Your task to perform on an android device: open app "Roku - Official Remote Control" (install if not already installed) and enter user name: "autumnal@gmail.com" and password: "stuffing" Image 0: 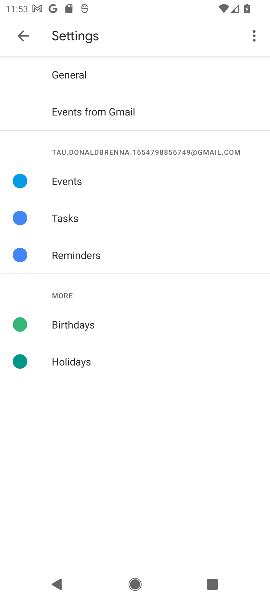
Step 0: press home button
Your task to perform on an android device: open app "Roku - Official Remote Control" (install if not already installed) and enter user name: "autumnal@gmail.com" and password: "stuffing" Image 1: 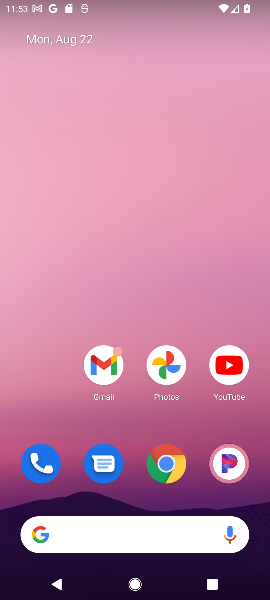
Step 1: click (127, 49)
Your task to perform on an android device: open app "Roku - Official Remote Control" (install if not already installed) and enter user name: "autumnal@gmail.com" and password: "stuffing" Image 2: 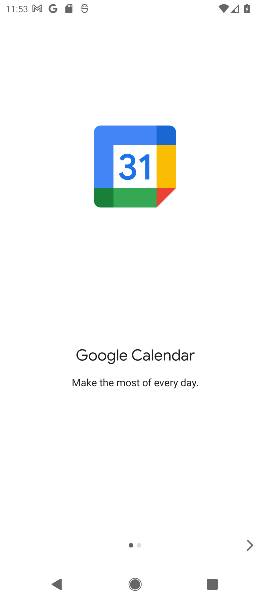
Step 2: click (247, 546)
Your task to perform on an android device: open app "Roku - Official Remote Control" (install if not already installed) and enter user name: "autumnal@gmail.com" and password: "stuffing" Image 3: 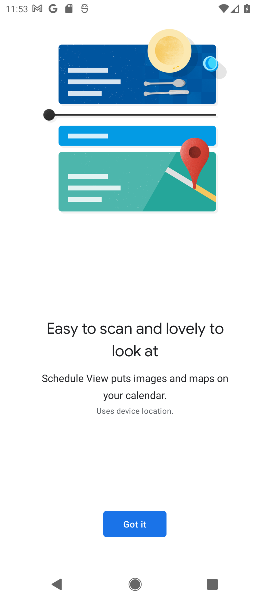
Step 3: click (154, 522)
Your task to perform on an android device: open app "Roku - Official Remote Control" (install if not already installed) and enter user name: "autumnal@gmail.com" and password: "stuffing" Image 4: 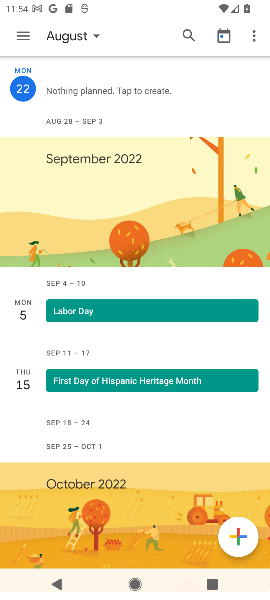
Step 4: press home button
Your task to perform on an android device: open app "Roku - Official Remote Control" (install if not already installed) and enter user name: "autumnal@gmail.com" and password: "stuffing" Image 5: 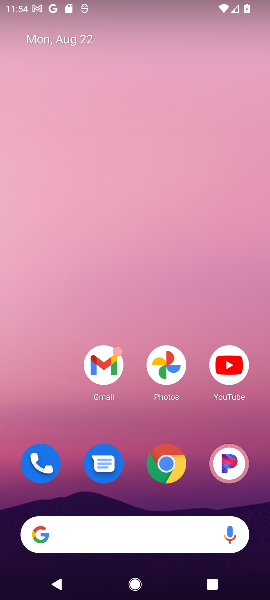
Step 5: drag from (152, 512) to (146, 59)
Your task to perform on an android device: open app "Roku - Official Remote Control" (install if not already installed) and enter user name: "autumnal@gmail.com" and password: "stuffing" Image 6: 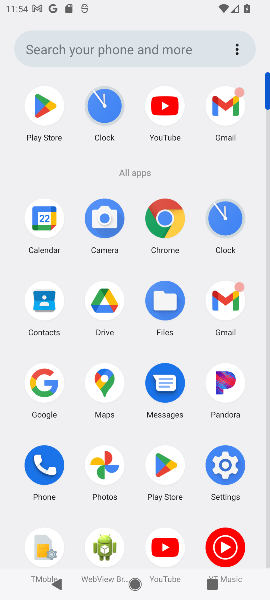
Step 6: click (161, 463)
Your task to perform on an android device: open app "Roku - Official Remote Control" (install if not already installed) and enter user name: "autumnal@gmail.com" and password: "stuffing" Image 7: 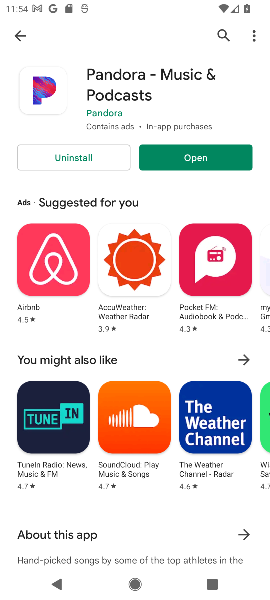
Step 7: click (220, 29)
Your task to perform on an android device: open app "Roku - Official Remote Control" (install if not already installed) and enter user name: "autumnal@gmail.com" and password: "stuffing" Image 8: 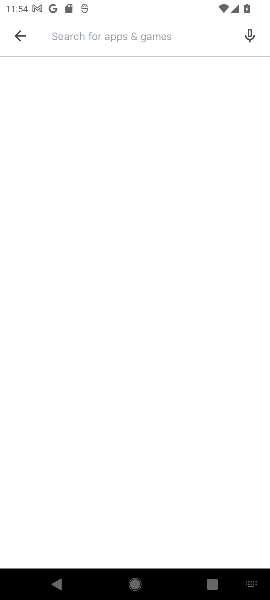
Step 8: type "Roku - Official Remote Control"
Your task to perform on an android device: open app "Roku - Official Remote Control" (install if not already installed) and enter user name: "autumnal@gmail.com" and password: "stuffing" Image 9: 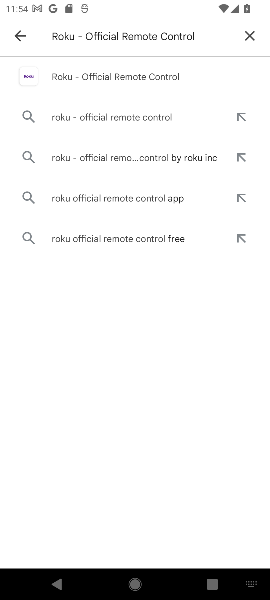
Step 9: click (139, 71)
Your task to perform on an android device: open app "Roku - Official Remote Control" (install if not already installed) and enter user name: "autumnal@gmail.com" and password: "stuffing" Image 10: 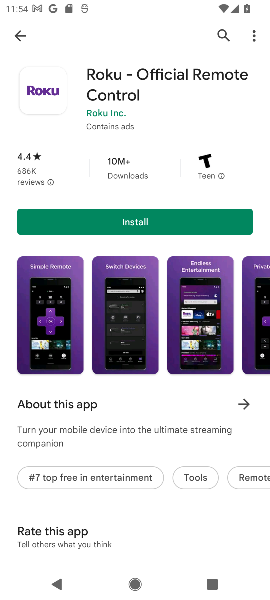
Step 10: click (145, 225)
Your task to perform on an android device: open app "Roku - Official Remote Control" (install if not already installed) and enter user name: "autumnal@gmail.com" and password: "stuffing" Image 11: 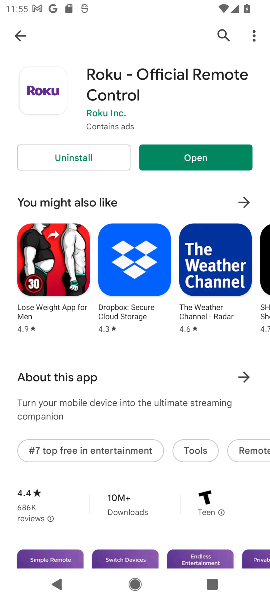
Step 11: click (175, 158)
Your task to perform on an android device: open app "Roku - Official Remote Control" (install if not already installed) and enter user name: "autumnal@gmail.com" and password: "stuffing" Image 12: 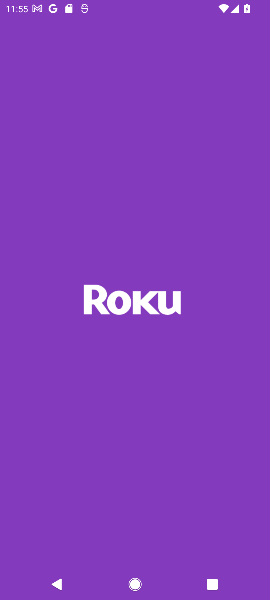
Step 12: task complete